Your task to perform on an android device: Go to Google Image 0: 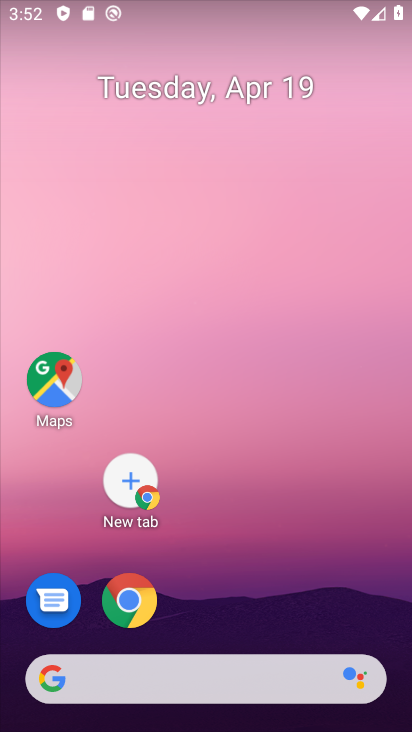
Step 0: click (47, 685)
Your task to perform on an android device: Go to Google Image 1: 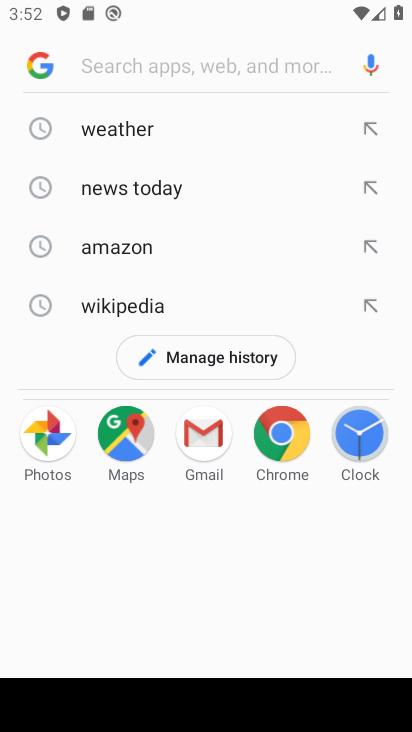
Step 1: click (40, 51)
Your task to perform on an android device: Go to Google Image 2: 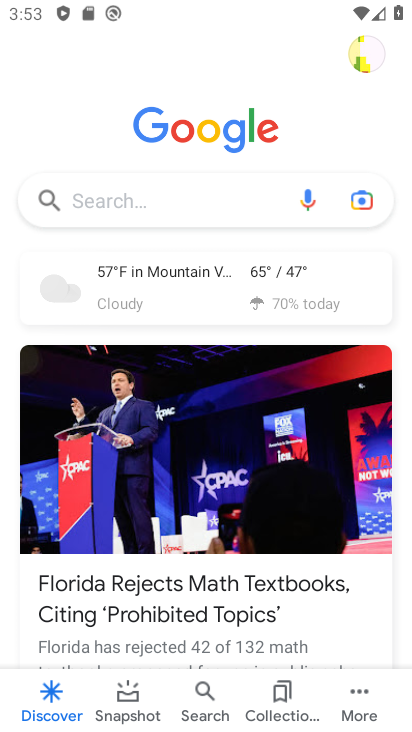
Step 2: task complete